Your task to perform on an android device: turn notification dots on Image 0: 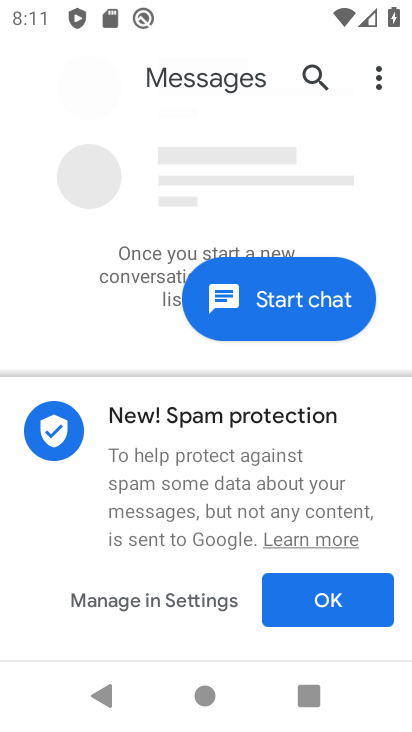
Step 0: press home button
Your task to perform on an android device: turn notification dots on Image 1: 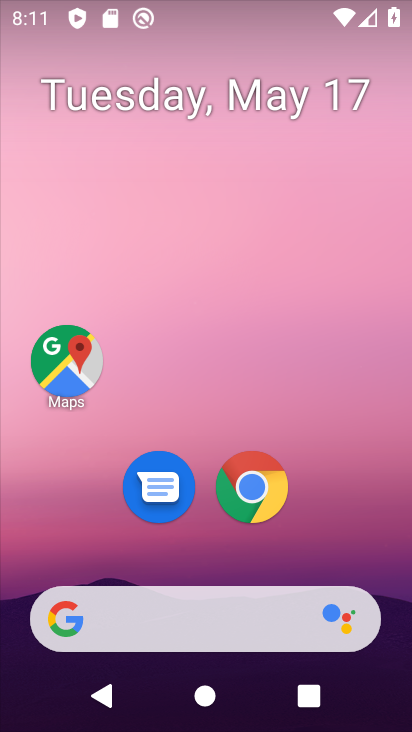
Step 1: drag from (247, 646) to (336, 188)
Your task to perform on an android device: turn notification dots on Image 2: 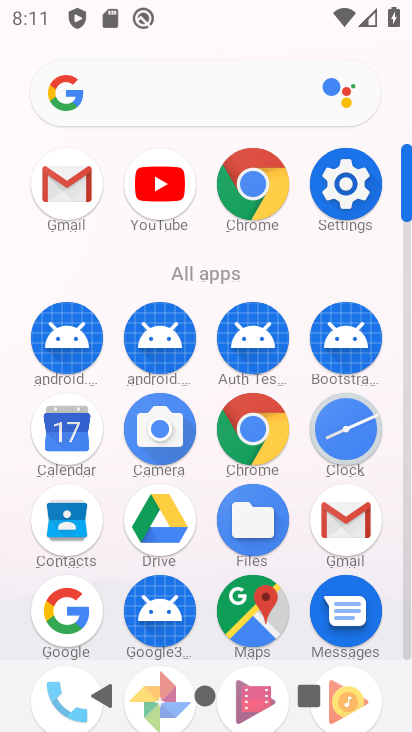
Step 2: click (338, 207)
Your task to perform on an android device: turn notification dots on Image 3: 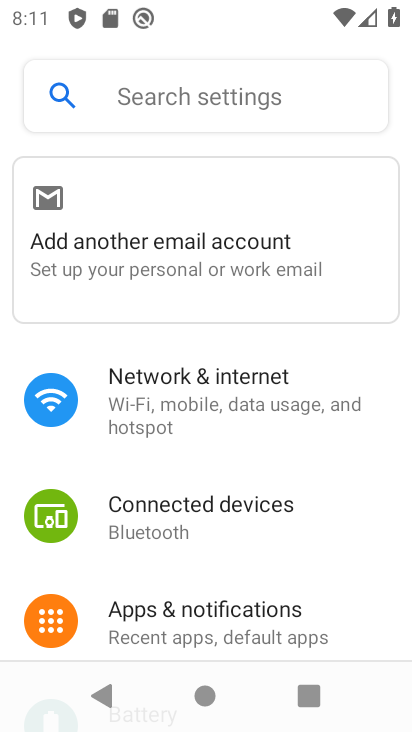
Step 3: click (179, 88)
Your task to perform on an android device: turn notification dots on Image 4: 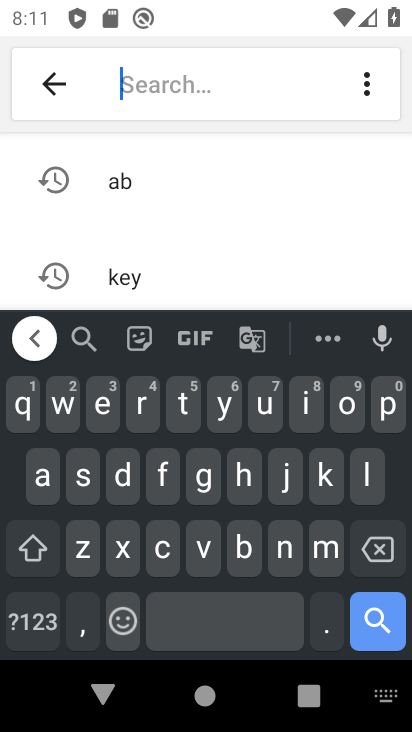
Step 4: click (133, 477)
Your task to perform on an android device: turn notification dots on Image 5: 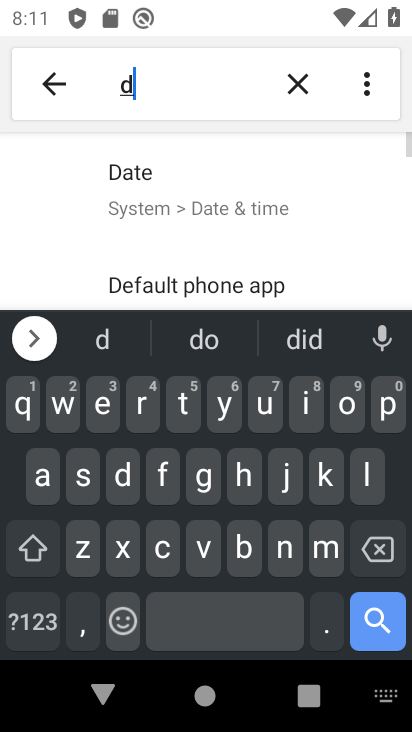
Step 5: click (346, 409)
Your task to perform on an android device: turn notification dots on Image 6: 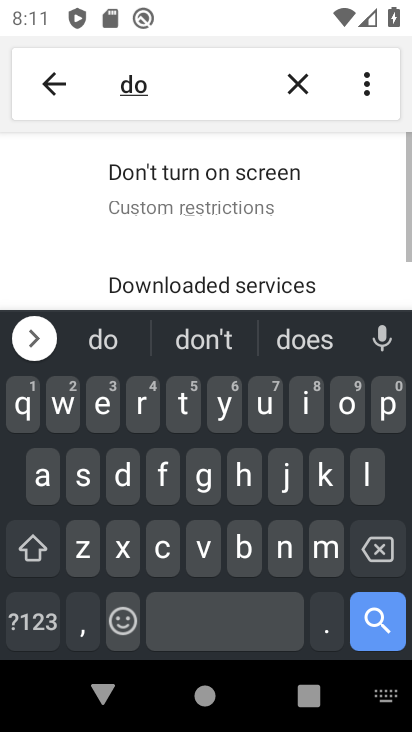
Step 6: click (180, 412)
Your task to perform on an android device: turn notification dots on Image 7: 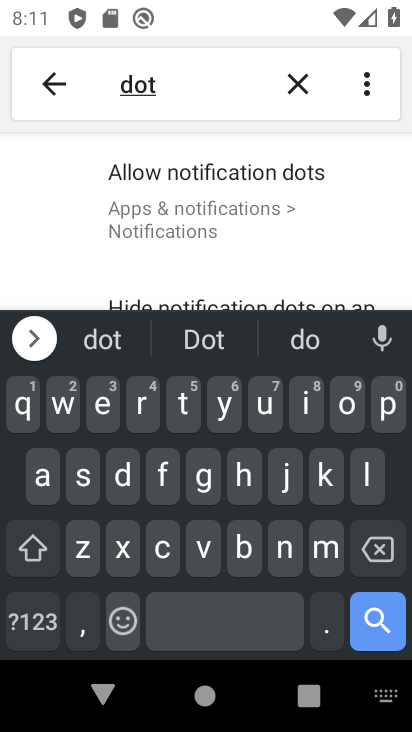
Step 7: click (216, 180)
Your task to perform on an android device: turn notification dots on Image 8: 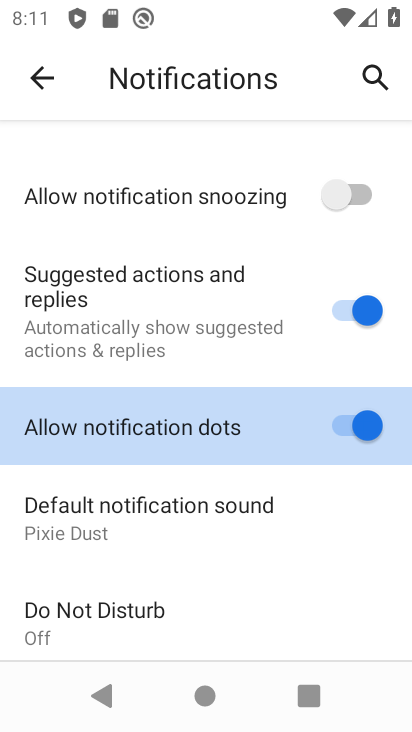
Step 8: click (325, 431)
Your task to perform on an android device: turn notification dots on Image 9: 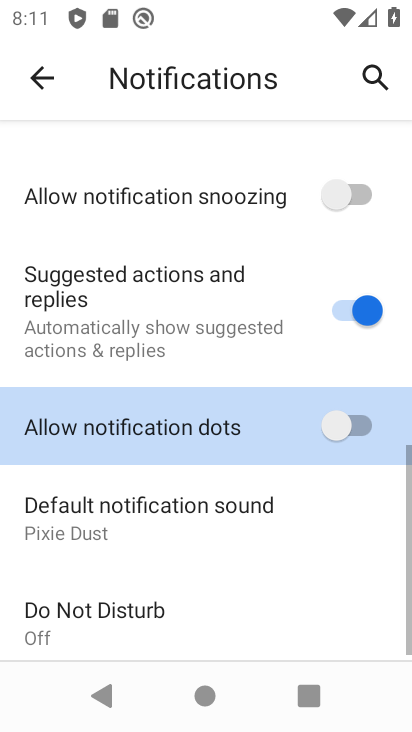
Step 9: click (324, 429)
Your task to perform on an android device: turn notification dots on Image 10: 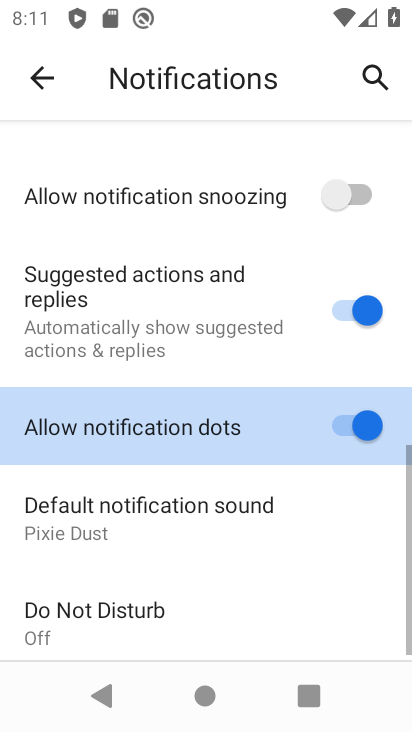
Step 10: task complete